Your task to perform on an android device: turn on the 12-hour format for clock Image 0: 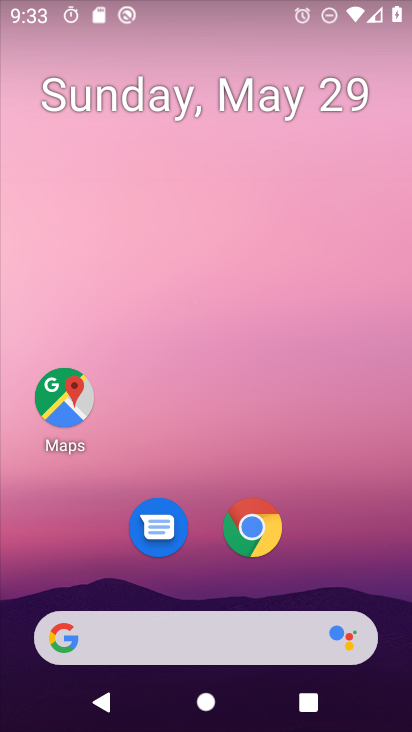
Step 0: drag from (395, 608) to (334, 4)
Your task to perform on an android device: turn on the 12-hour format for clock Image 1: 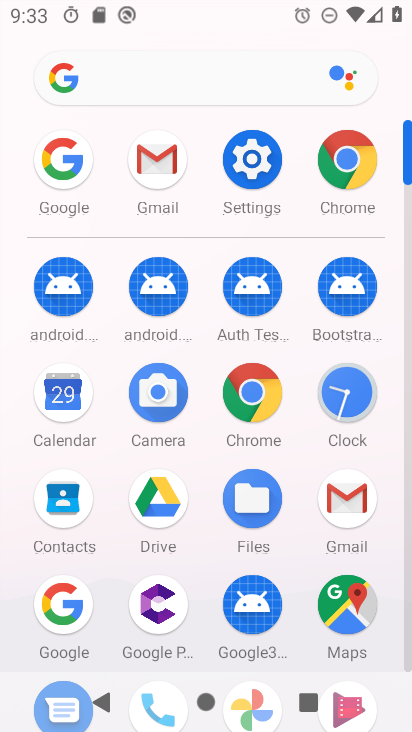
Step 1: click (335, 416)
Your task to perform on an android device: turn on the 12-hour format for clock Image 2: 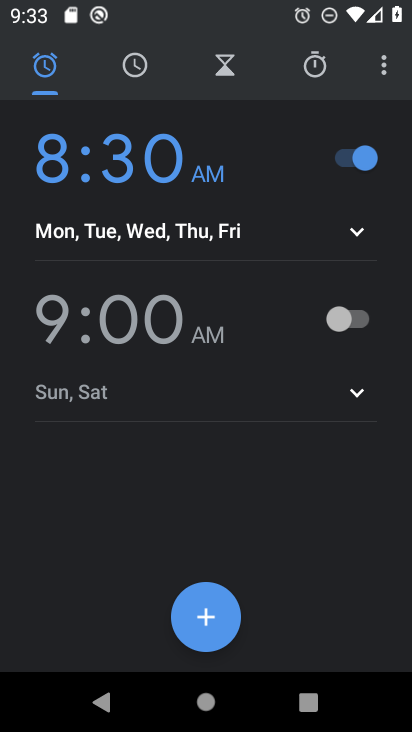
Step 2: click (391, 63)
Your task to perform on an android device: turn on the 12-hour format for clock Image 3: 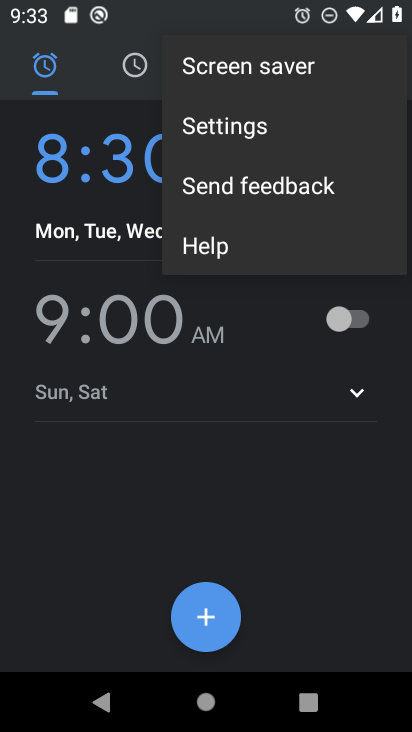
Step 3: click (262, 128)
Your task to perform on an android device: turn on the 12-hour format for clock Image 4: 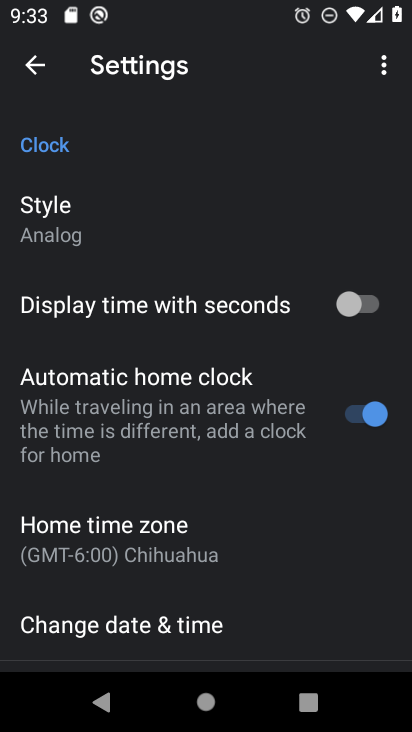
Step 4: click (180, 634)
Your task to perform on an android device: turn on the 12-hour format for clock Image 5: 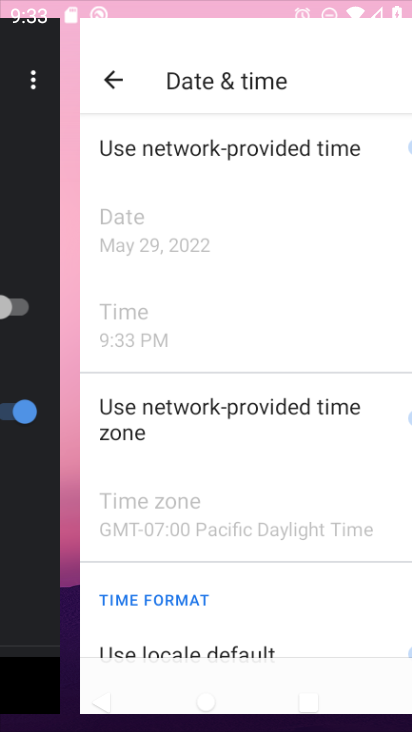
Step 5: task complete